Your task to perform on an android device: change alarm snooze length Image 0: 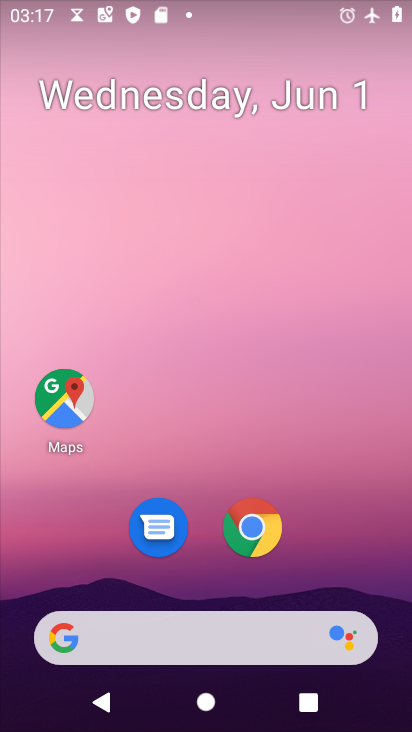
Step 0: drag from (300, 541) to (249, 16)
Your task to perform on an android device: change alarm snooze length Image 1: 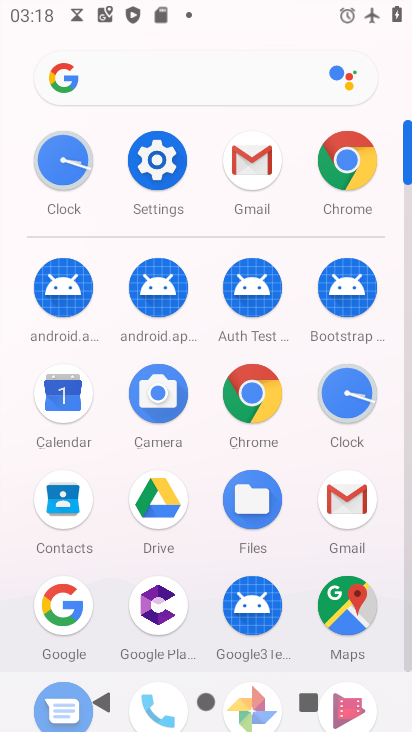
Step 1: drag from (208, 549) to (210, 380)
Your task to perform on an android device: change alarm snooze length Image 2: 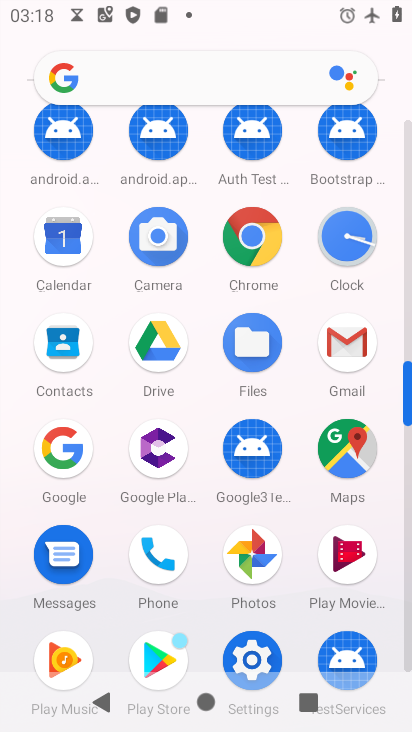
Step 2: click (346, 235)
Your task to perform on an android device: change alarm snooze length Image 3: 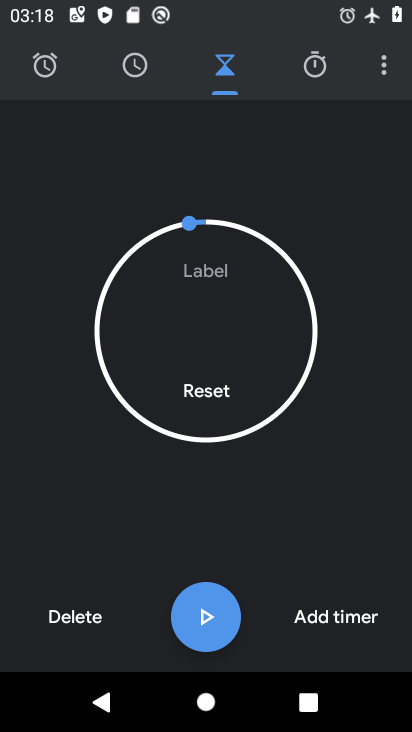
Step 3: click (384, 63)
Your task to perform on an android device: change alarm snooze length Image 4: 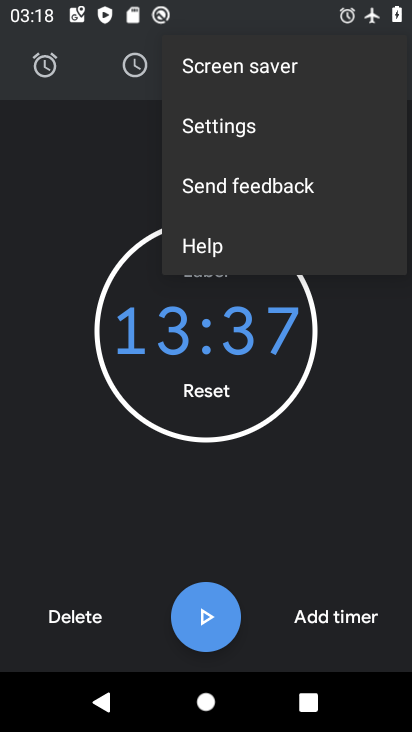
Step 4: click (251, 129)
Your task to perform on an android device: change alarm snooze length Image 5: 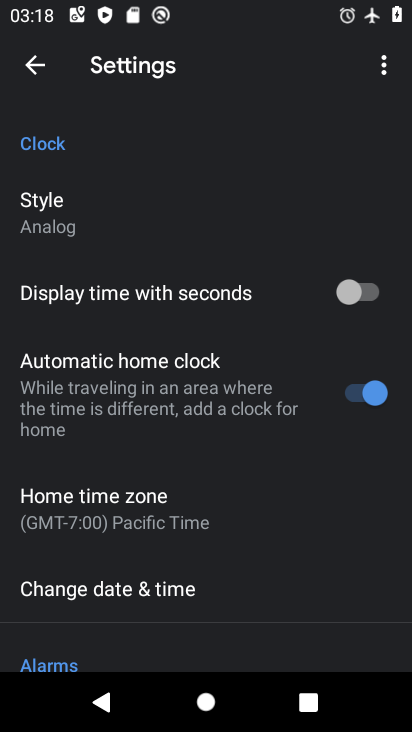
Step 5: drag from (154, 329) to (204, 228)
Your task to perform on an android device: change alarm snooze length Image 6: 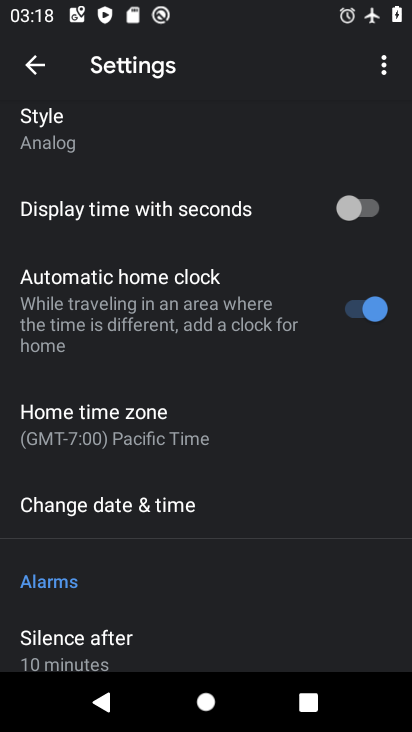
Step 6: drag from (130, 377) to (208, 268)
Your task to perform on an android device: change alarm snooze length Image 7: 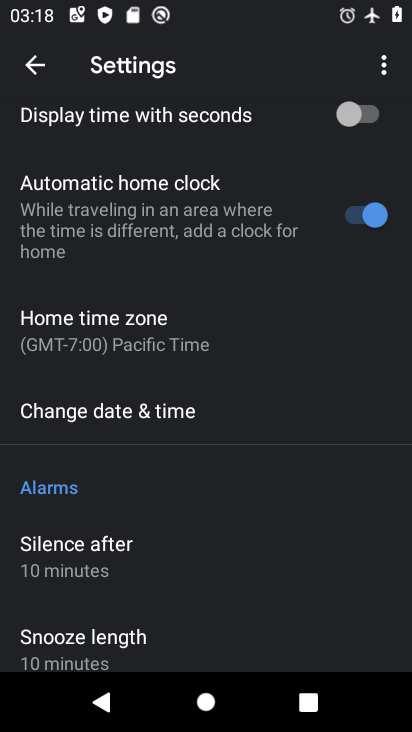
Step 7: drag from (142, 472) to (256, 351)
Your task to perform on an android device: change alarm snooze length Image 8: 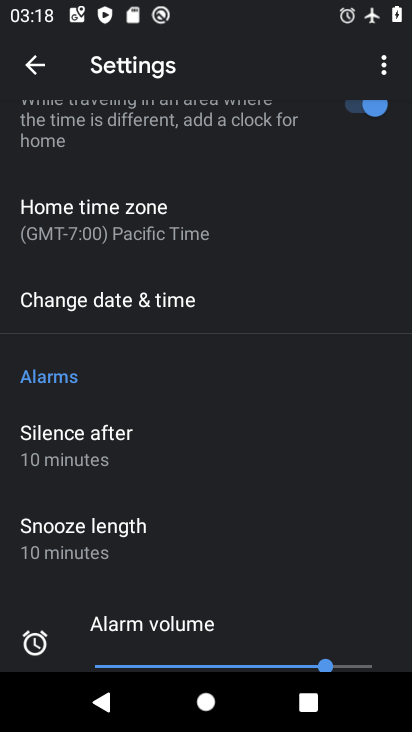
Step 8: click (102, 537)
Your task to perform on an android device: change alarm snooze length Image 9: 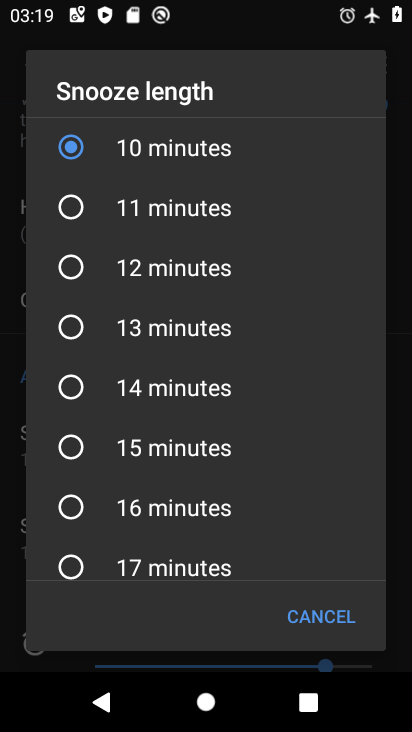
Step 9: drag from (141, 486) to (185, 388)
Your task to perform on an android device: change alarm snooze length Image 10: 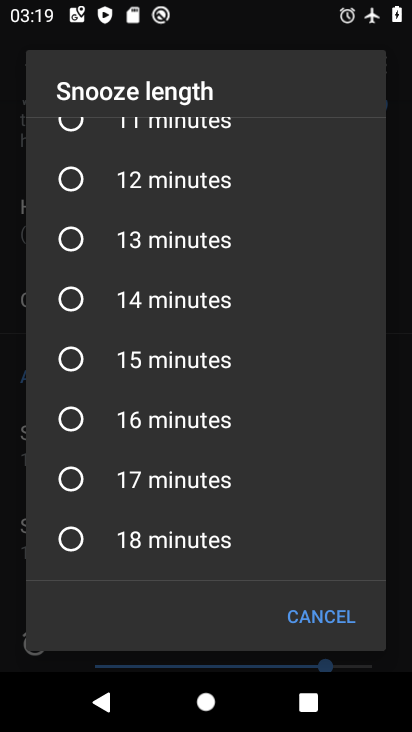
Step 10: drag from (178, 496) to (216, 408)
Your task to perform on an android device: change alarm snooze length Image 11: 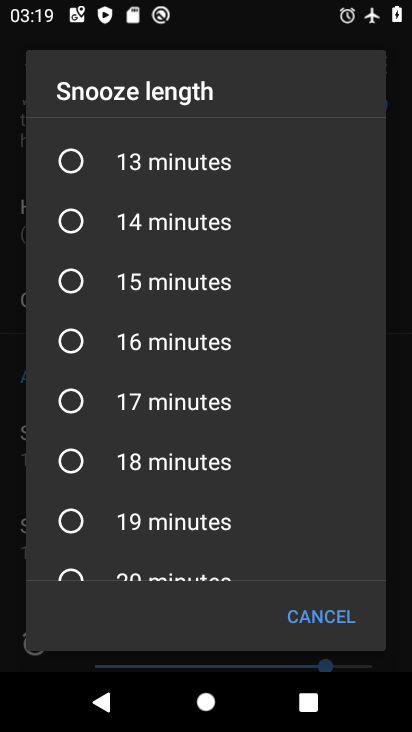
Step 11: drag from (161, 483) to (222, 388)
Your task to perform on an android device: change alarm snooze length Image 12: 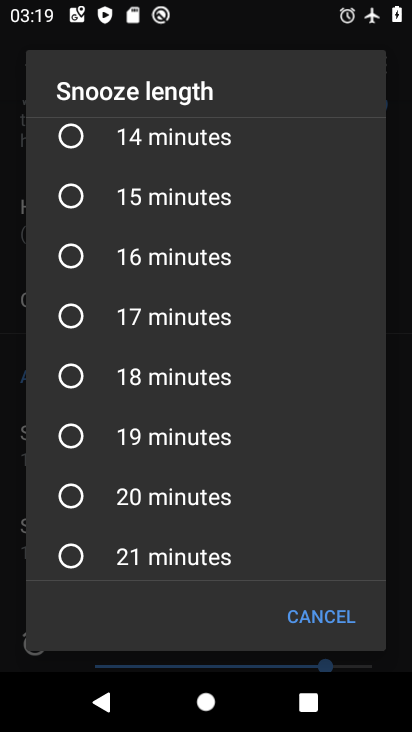
Step 12: drag from (168, 466) to (234, 356)
Your task to perform on an android device: change alarm snooze length Image 13: 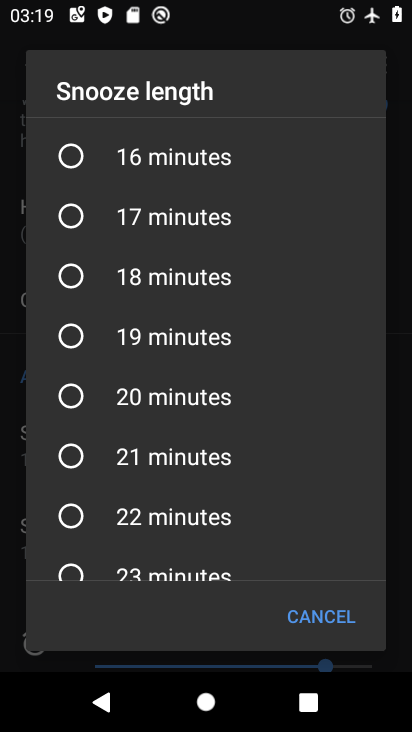
Step 13: drag from (156, 492) to (227, 394)
Your task to perform on an android device: change alarm snooze length Image 14: 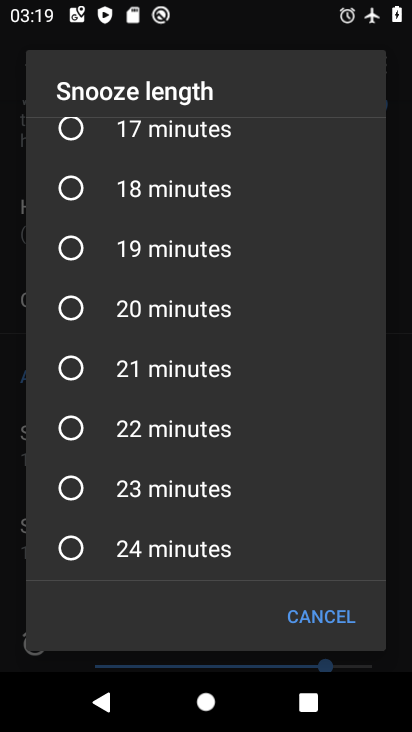
Step 14: drag from (165, 507) to (232, 350)
Your task to perform on an android device: change alarm snooze length Image 15: 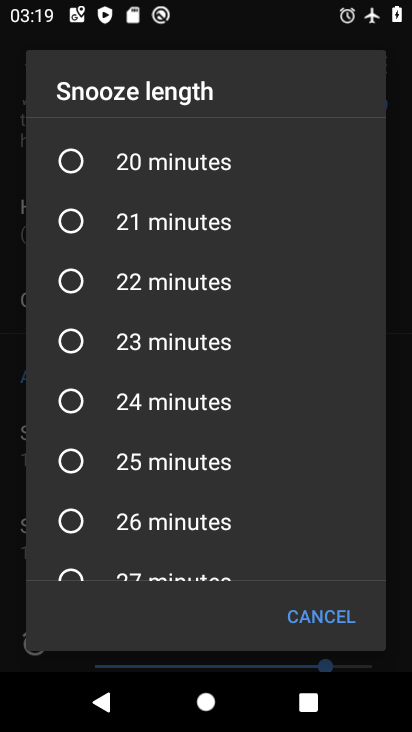
Step 15: click (78, 460)
Your task to perform on an android device: change alarm snooze length Image 16: 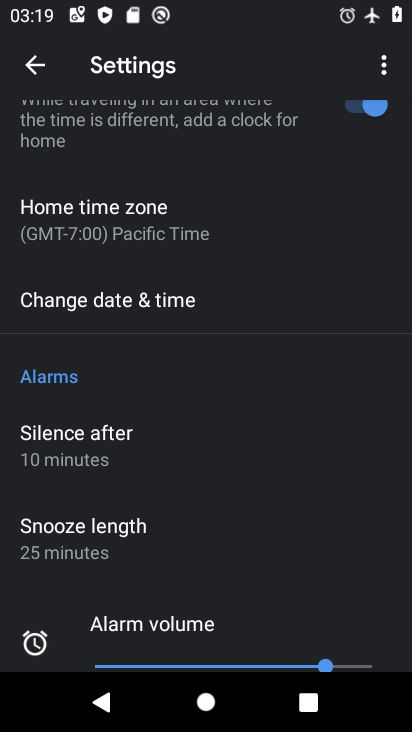
Step 16: task complete